Your task to perform on an android device: refresh tabs in the chrome app Image 0: 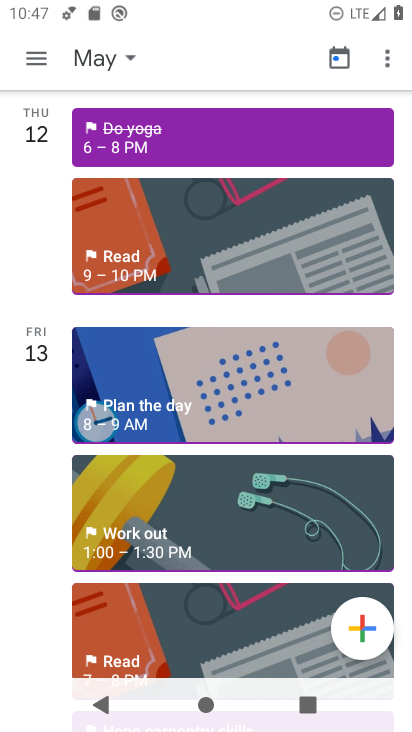
Step 0: press home button
Your task to perform on an android device: refresh tabs in the chrome app Image 1: 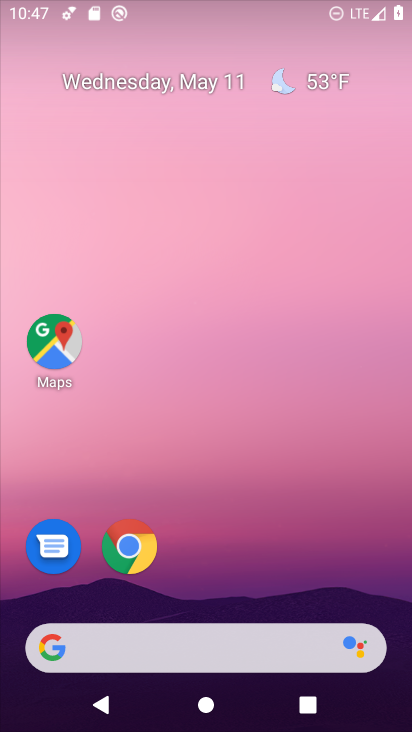
Step 1: drag from (395, 660) to (306, 100)
Your task to perform on an android device: refresh tabs in the chrome app Image 2: 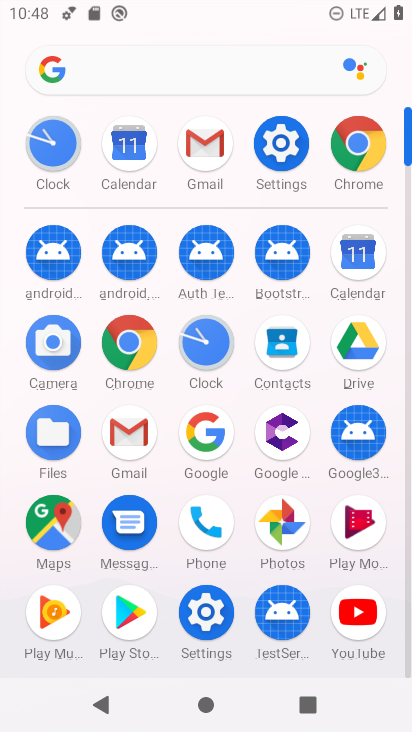
Step 2: click (354, 150)
Your task to perform on an android device: refresh tabs in the chrome app Image 3: 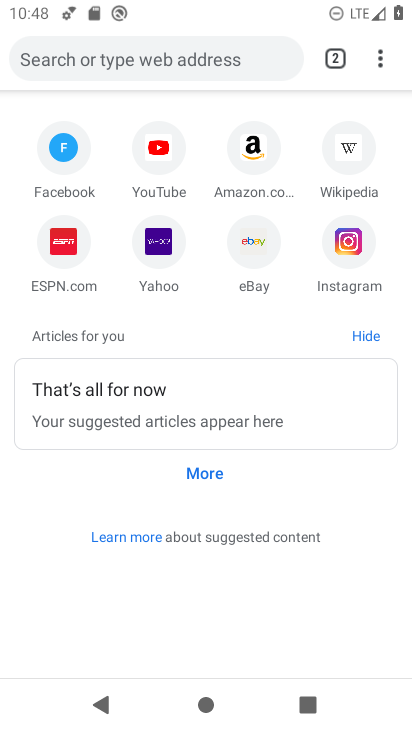
Step 3: click (386, 57)
Your task to perform on an android device: refresh tabs in the chrome app Image 4: 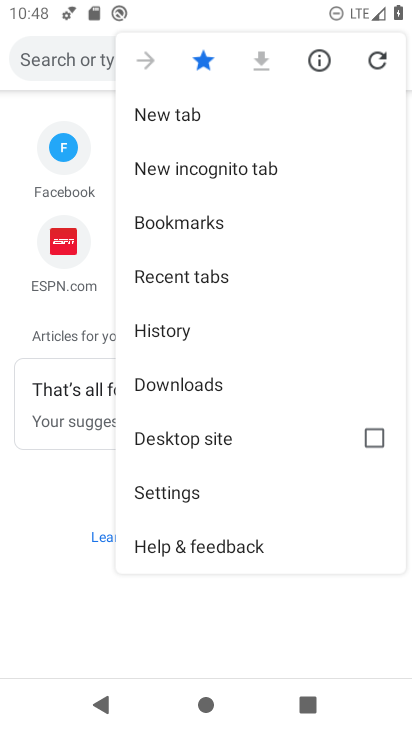
Step 4: click (386, 57)
Your task to perform on an android device: refresh tabs in the chrome app Image 5: 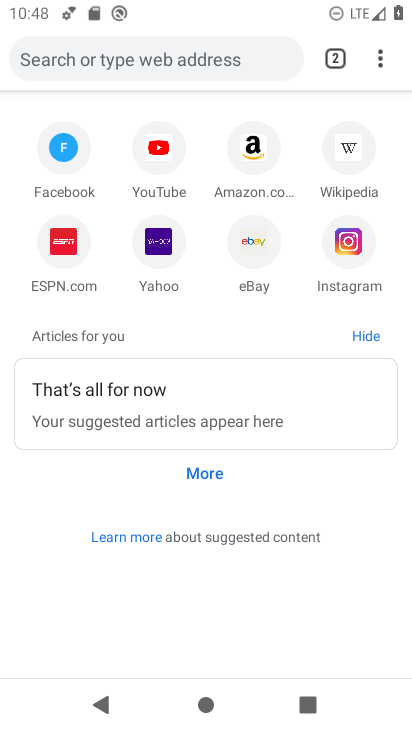
Step 5: task complete